Your task to perform on an android device: Open calendar and show me the fourth week of next month Image 0: 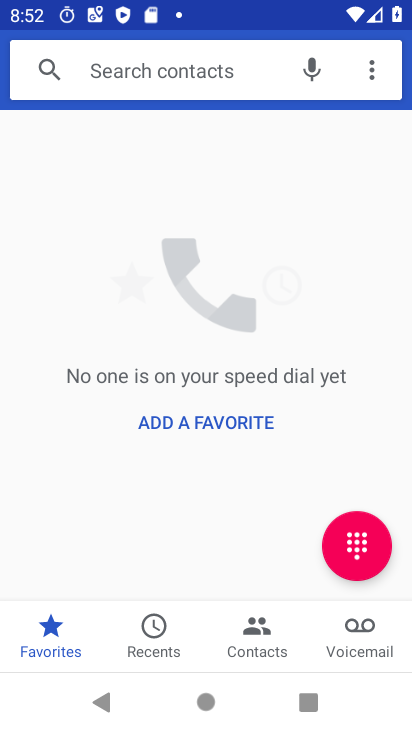
Step 0: press home button
Your task to perform on an android device: Open calendar and show me the fourth week of next month Image 1: 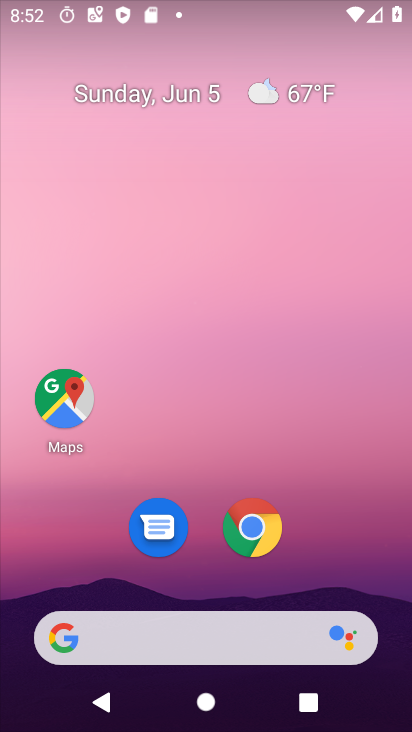
Step 1: drag from (241, 725) to (229, 72)
Your task to perform on an android device: Open calendar and show me the fourth week of next month Image 2: 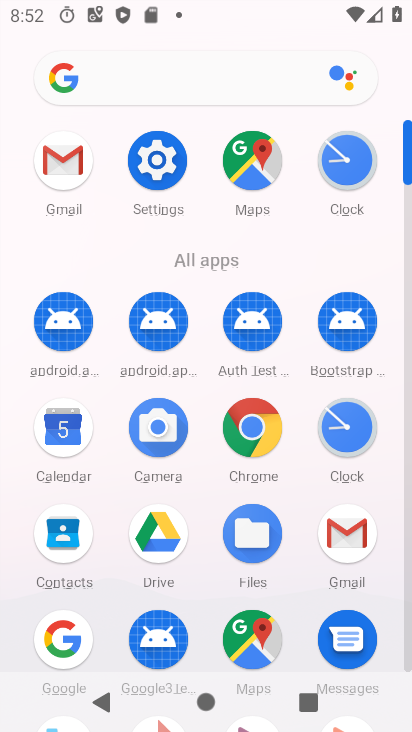
Step 2: click (69, 430)
Your task to perform on an android device: Open calendar and show me the fourth week of next month Image 3: 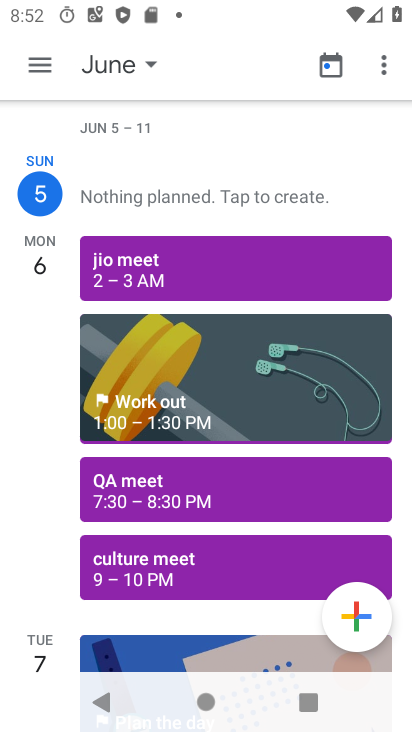
Step 3: click (147, 70)
Your task to perform on an android device: Open calendar and show me the fourth week of next month Image 4: 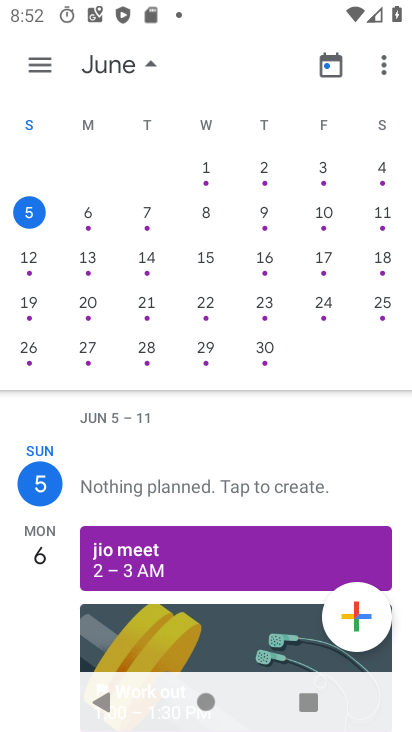
Step 4: click (85, 347)
Your task to perform on an android device: Open calendar and show me the fourth week of next month Image 5: 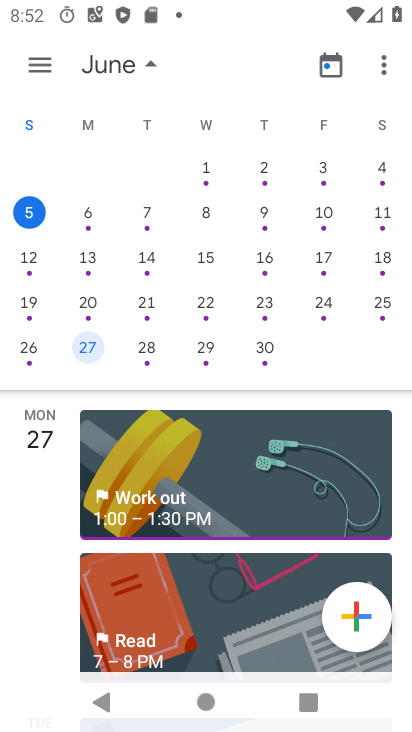
Step 5: click (85, 347)
Your task to perform on an android device: Open calendar and show me the fourth week of next month Image 6: 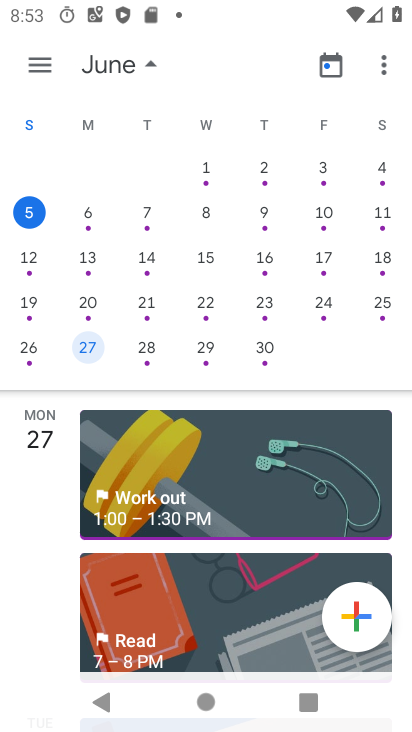
Step 6: click (45, 58)
Your task to perform on an android device: Open calendar and show me the fourth week of next month Image 7: 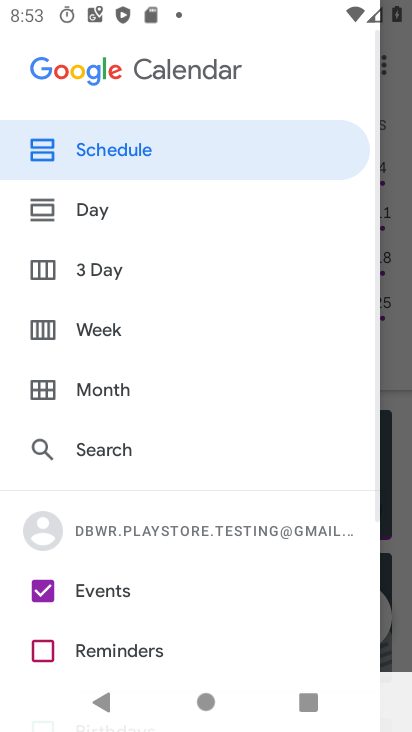
Step 7: click (91, 336)
Your task to perform on an android device: Open calendar and show me the fourth week of next month Image 8: 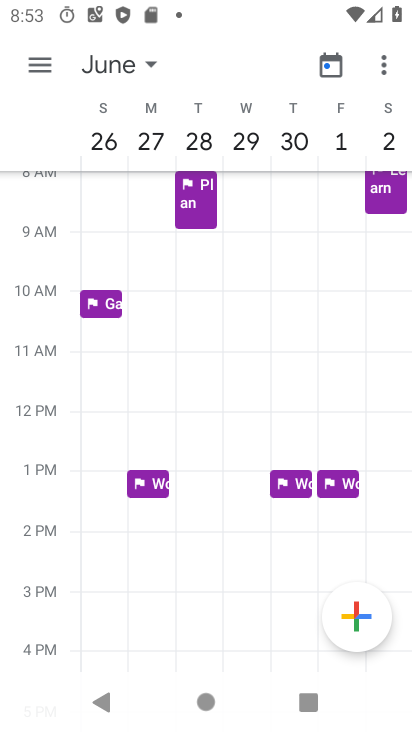
Step 8: task complete